Your task to perform on an android device: Search for sushi restaurants on Maps Image 0: 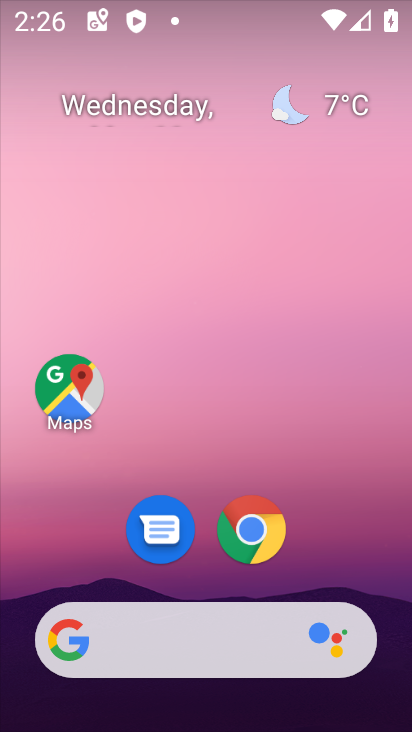
Step 0: click (85, 379)
Your task to perform on an android device: Search for sushi restaurants on Maps Image 1: 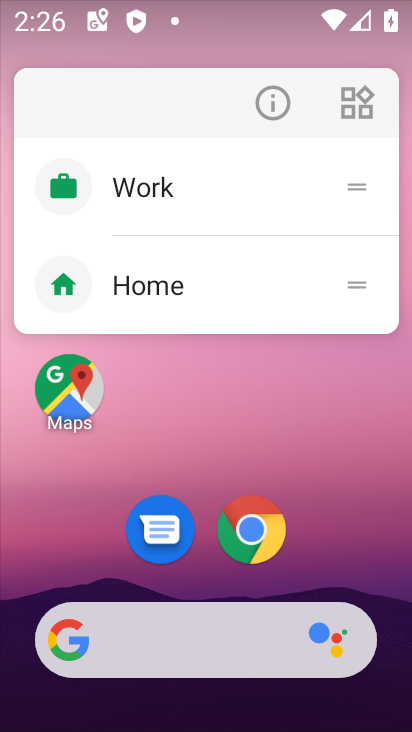
Step 1: click (50, 404)
Your task to perform on an android device: Search for sushi restaurants on Maps Image 2: 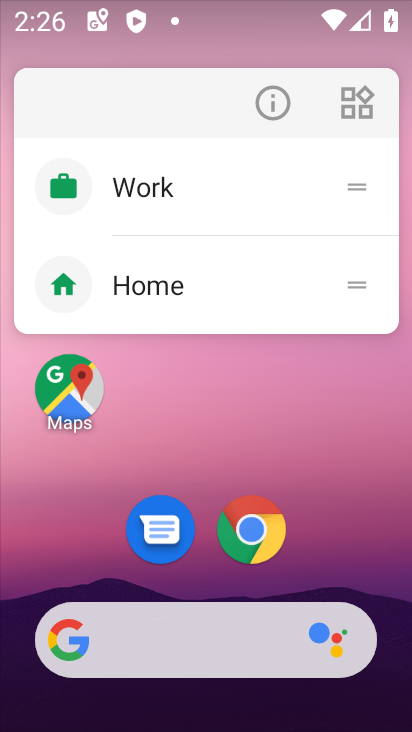
Step 2: click (86, 372)
Your task to perform on an android device: Search for sushi restaurants on Maps Image 3: 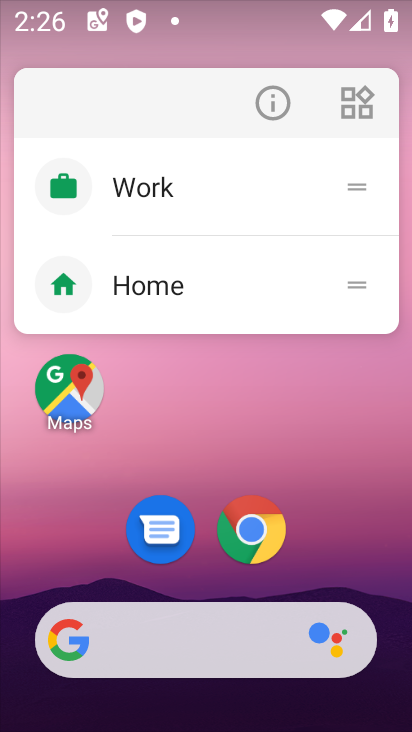
Step 3: click (68, 387)
Your task to perform on an android device: Search for sushi restaurants on Maps Image 4: 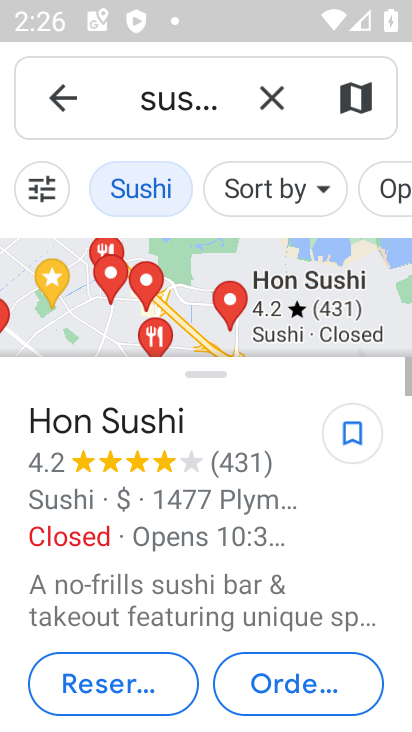
Step 4: click (262, 101)
Your task to perform on an android device: Search for sushi restaurants on Maps Image 5: 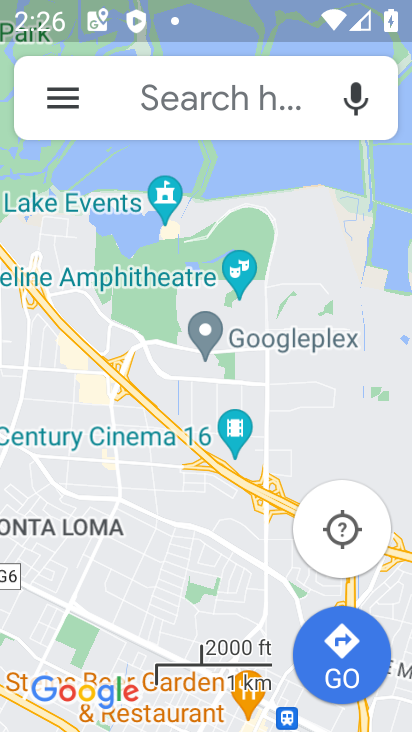
Step 5: click (223, 104)
Your task to perform on an android device: Search for sushi restaurants on Maps Image 6: 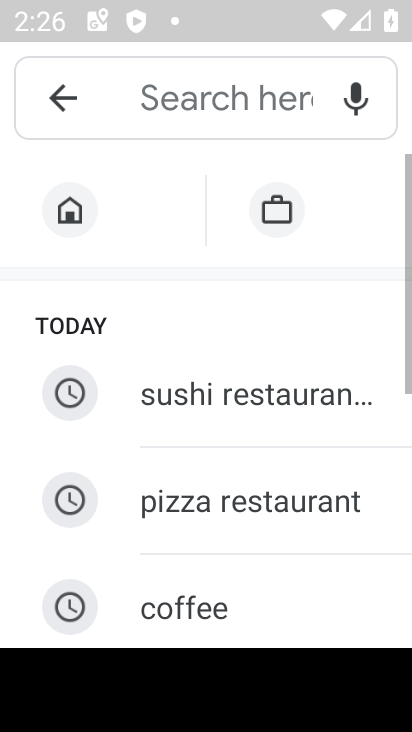
Step 6: click (163, 406)
Your task to perform on an android device: Search for sushi restaurants on Maps Image 7: 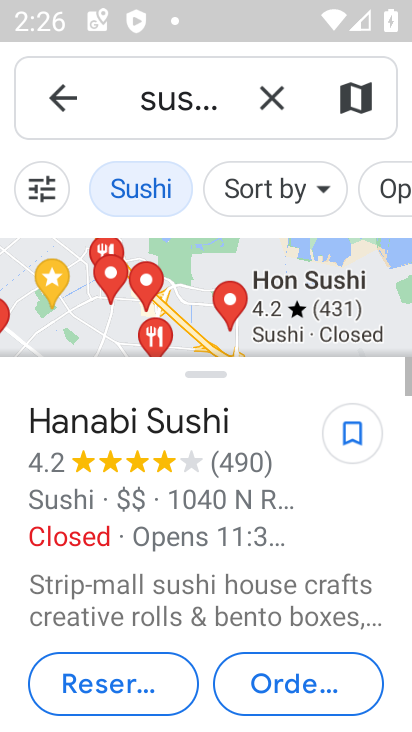
Step 7: task complete